Your task to perform on an android device: clear history in the chrome app Image 0: 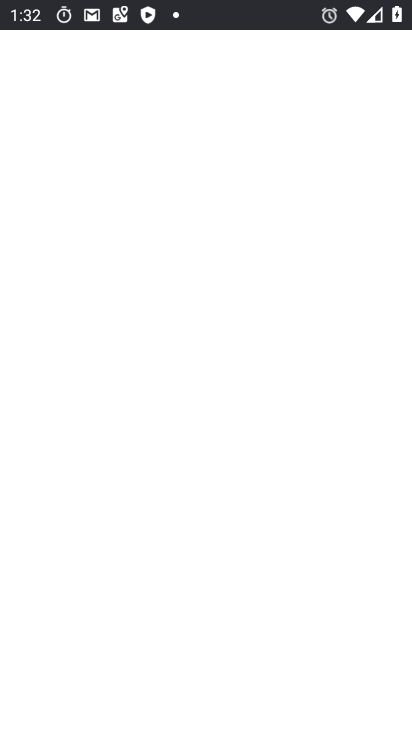
Step 0: drag from (312, 709) to (361, 131)
Your task to perform on an android device: clear history in the chrome app Image 1: 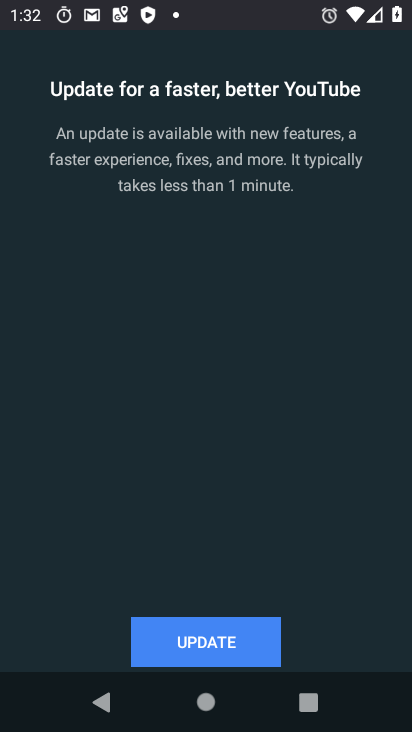
Step 1: press home button
Your task to perform on an android device: clear history in the chrome app Image 2: 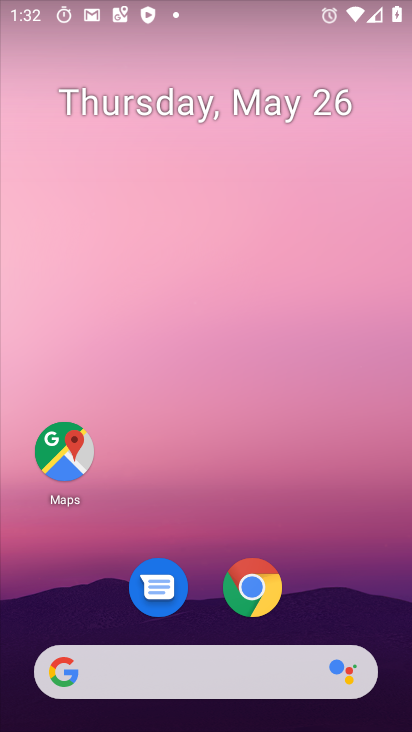
Step 2: drag from (232, 688) to (218, 19)
Your task to perform on an android device: clear history in the chrome app Image 3: 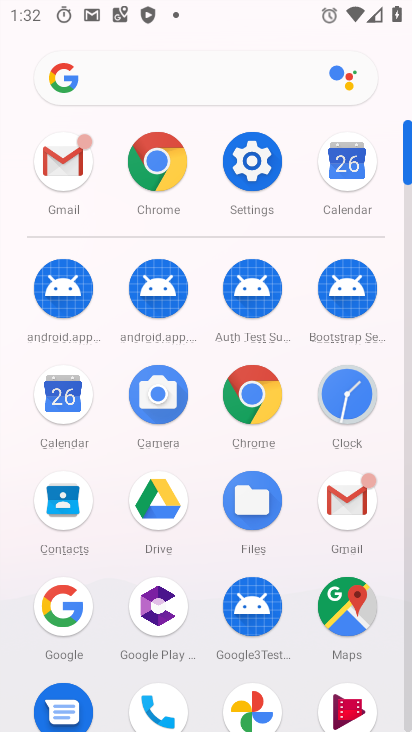
Step 3: click (130, 172)
Your task to perform on an android device: clear history in the chrome app Image 4: 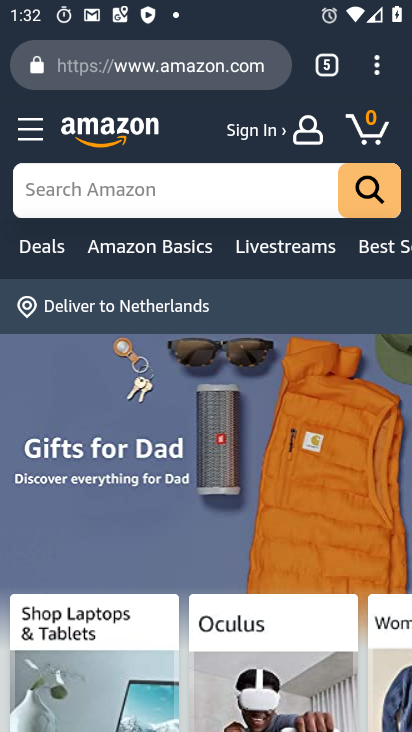
Step 4: click (376, 87)
Your task to perform on an android device: clear history in the chrome app Image 5: 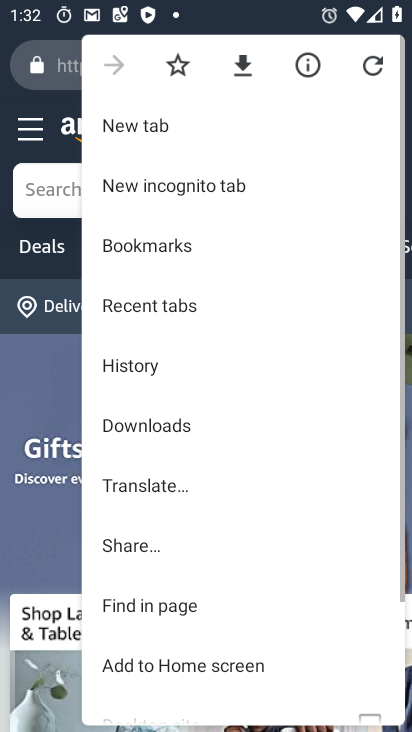
Step 5: drag from (165, 616) to (204, 391)
Your task to perform on an android device: clear history in the chrome app Image 6: 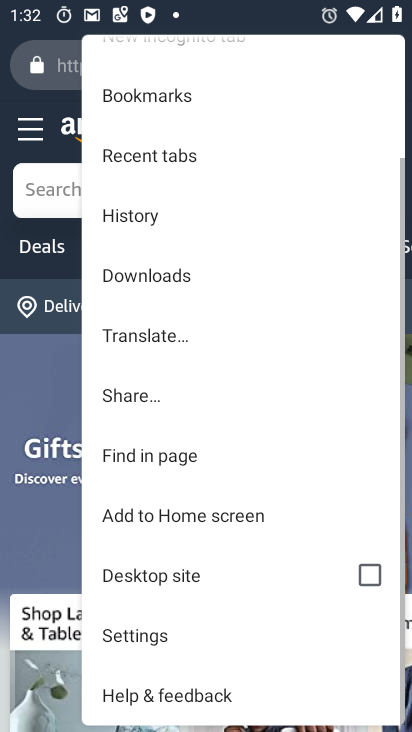
Step 6: click (148, 633)
Your task to perform on an android device: clear history in the chrome app Image 7: 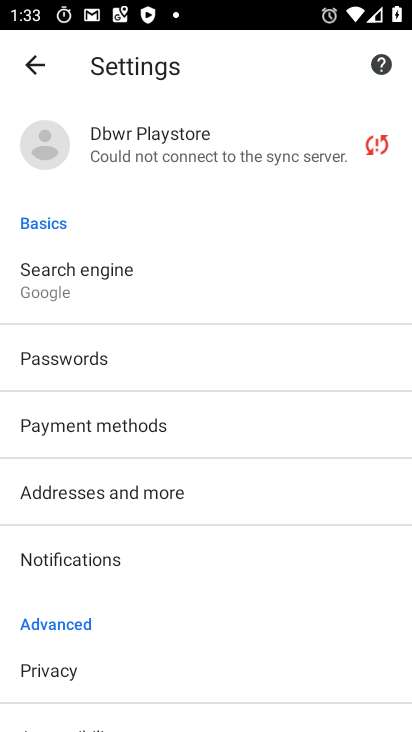
Step 7: click (49, 677)
Your task to perform on an android device: clear history in the chrome app Image 8: 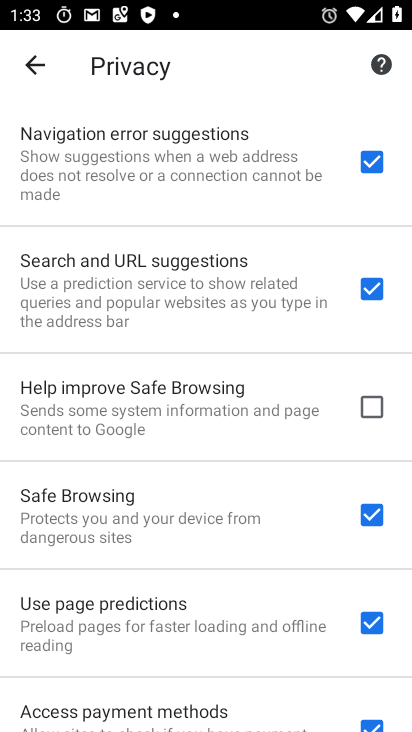
Step 8: drag from (165, 517) to (189, 254)
Your task to perform on an android device: clear history in the chrome app Image 9: 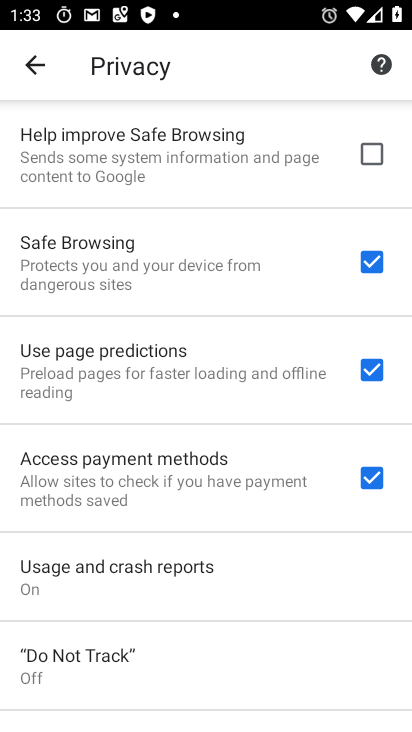
Step 9: drag from (96, 699) to (165, 497)
Your task to perform on an android device: clear history in the chrome app Image 10: 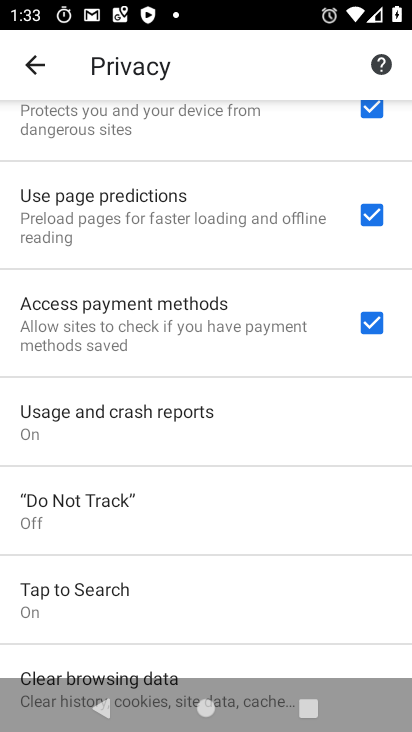
Step 10: click (116, 655)
Your task to perform on an android device: clear history in the chrome app Image 11: 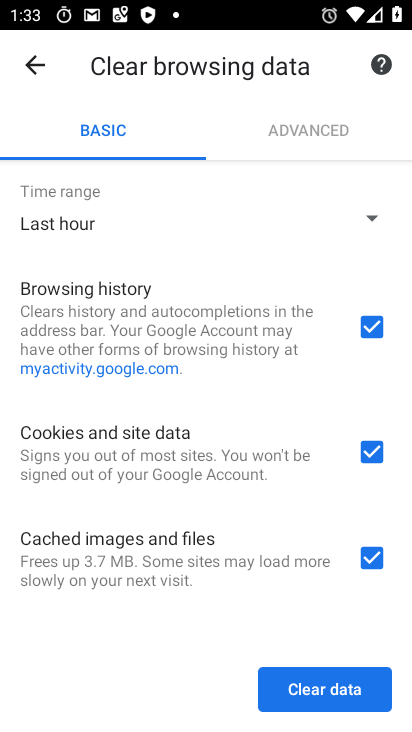
Step 11: click (316, 678)
Your task to perform on an android device: clear history in the chrome app Image 12: 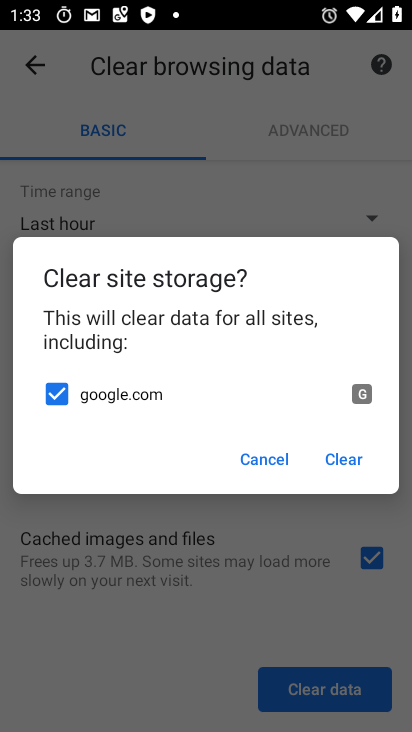
Step 12: task complete